Your task to perform on an android device: Open privacy settings Image 0: 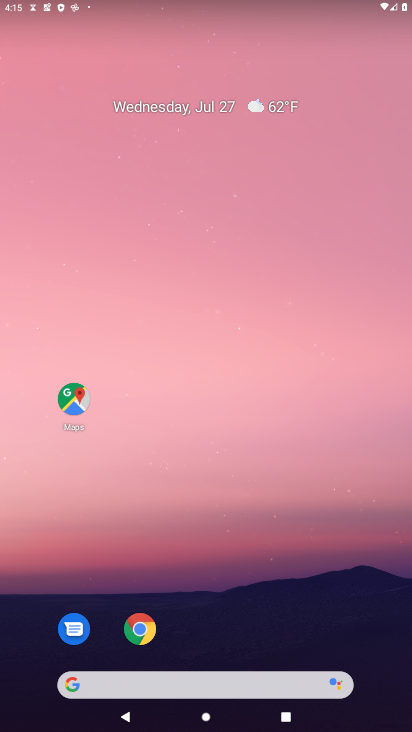
Step 0: drag from (218, 681) to (188, 64)
Your task to perform on an android device: Open privacy settings Image 1: 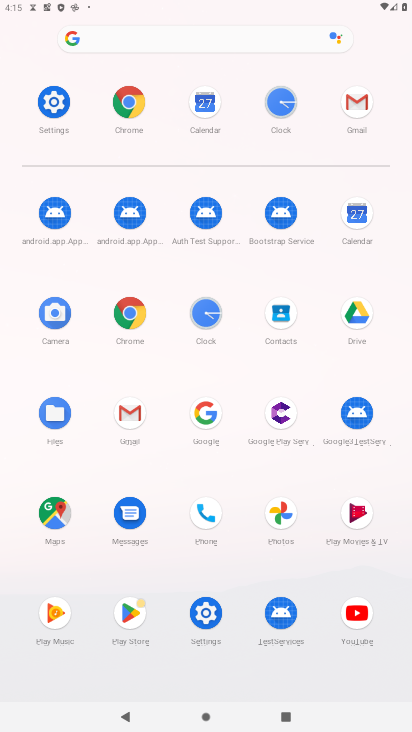
Step 1: click (55, 101)
Your task to perform on an android device: Open privacy settings Image 2: 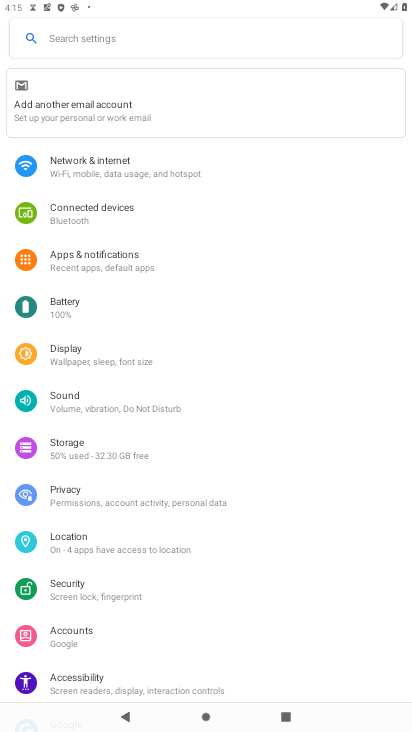
Step 2: click (106, 502)
Your task to perform on an android device: Open privacy settings Image 3: 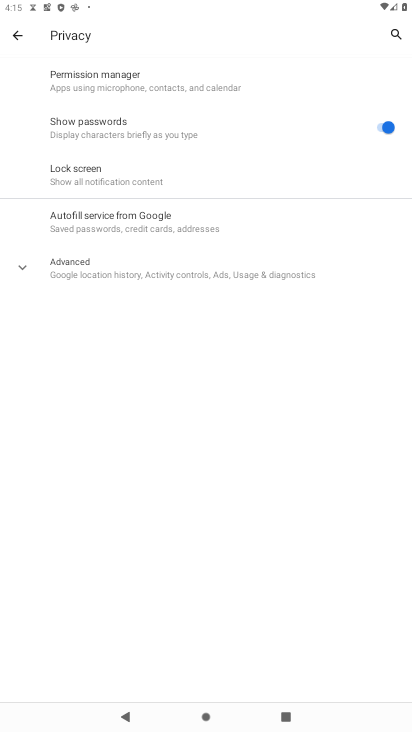
Step 3: task complete